Your task to perform on an android device: Open internet settings Image 0: 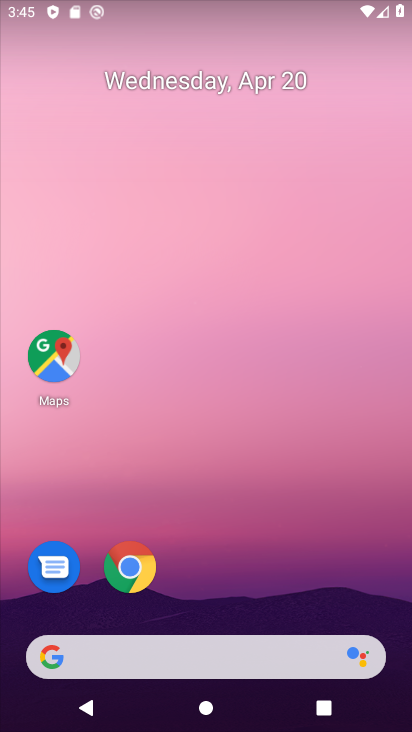
Step 0: drag from (276, 567) to (291, 38)
Your task to perform on an android device: Open internet settings Image 1: 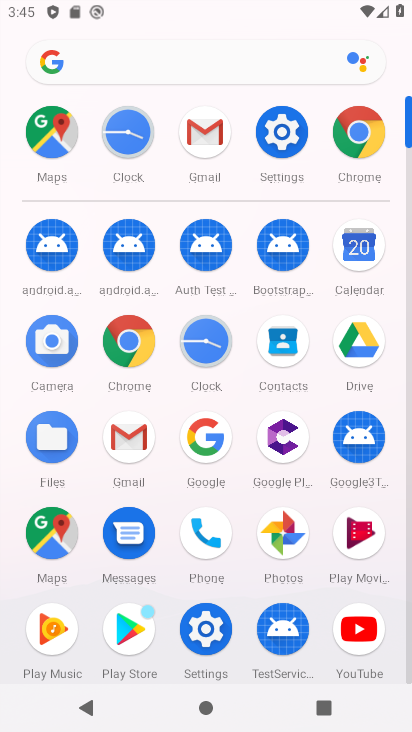
Step 1: click (289, 132)
Your task to perform on an android device: Open internet settings Image 2: 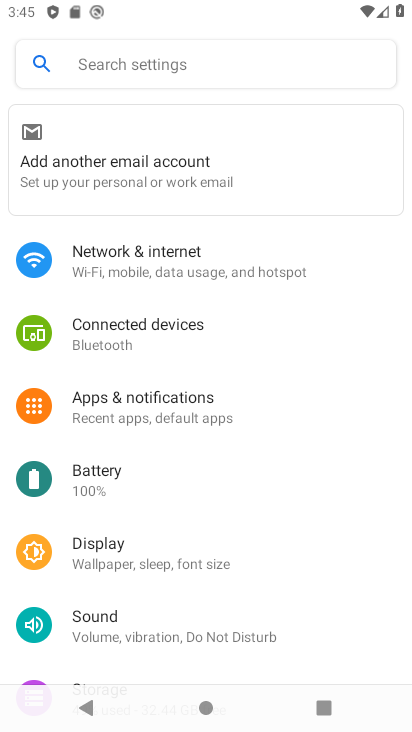
Step 2: click (168, 278)
Your task to perform on an android device: Open internet settings Image 3: 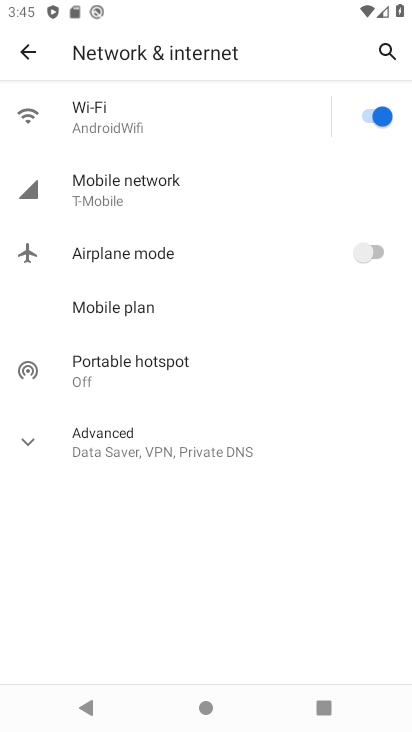
Step 3: task complete